Your task to perform on an android device: Go to internet settings Image 0: 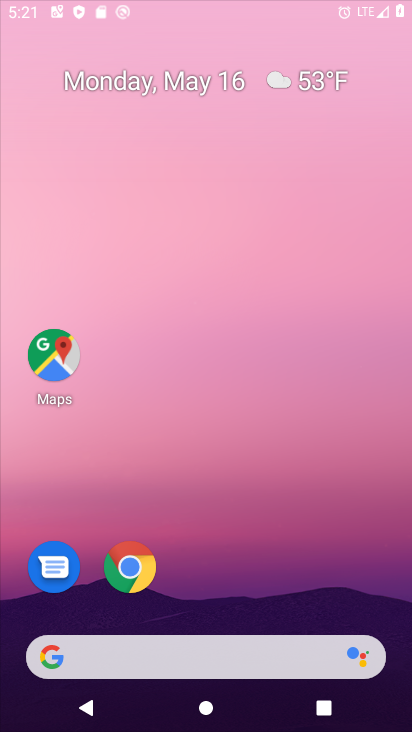
Step 0: press home button
Your task to perform on an android device: Go to internet settings Image 1: 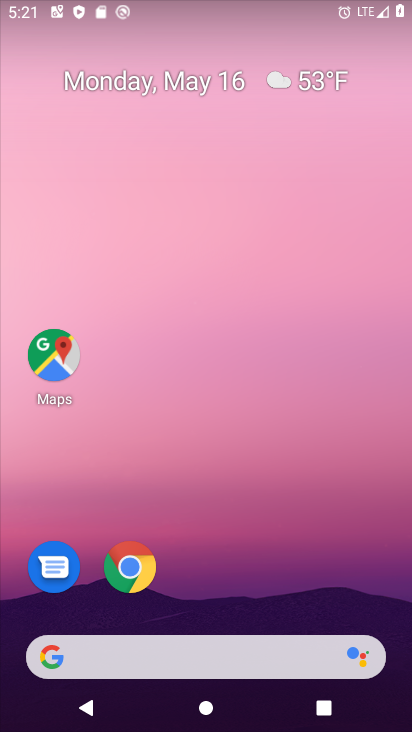
Step 1: drag from (265, 501) to (245, 130)
Your task to perform on an android device: Go to internet settings Image 2: 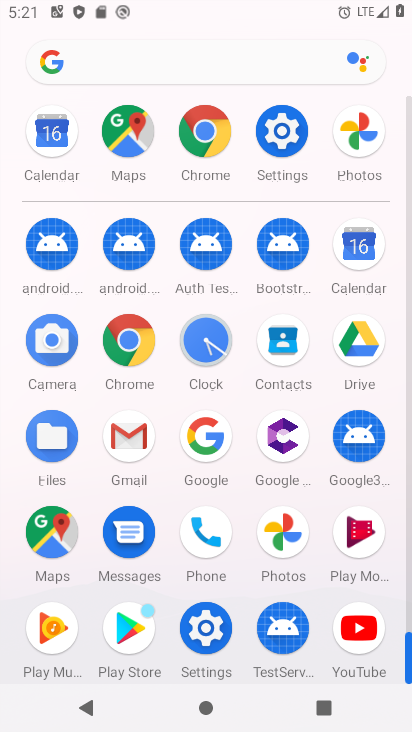
Step 2: click (287, 142)
Your task to perform on an android device: Go to internet settings Image 3: 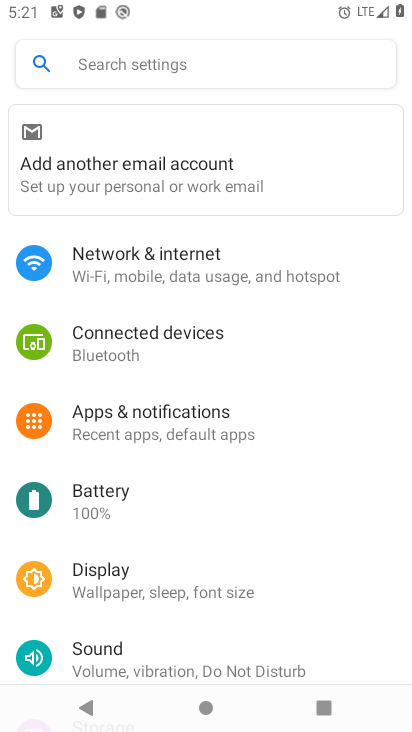
Step 3: drag from (283, 630) to (315, 167)
Your task to perform on an android device: Go to internet settings Image 4: 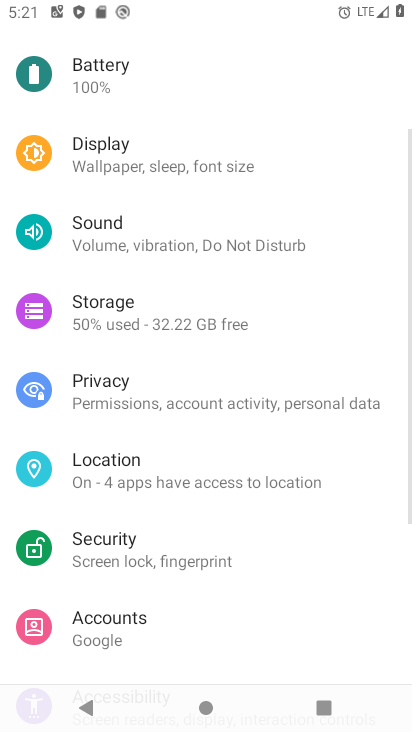
Step 4: drag from (313, 167) to (227, 729)
Your task to perform on an android device: Go to internet settings Image 5: 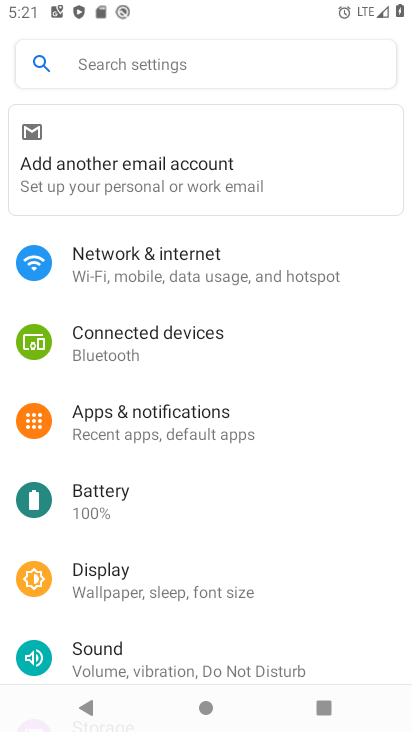
Step 5: click (222, 285)
Your task to perform on an android device: Go to internet settings Image 6: 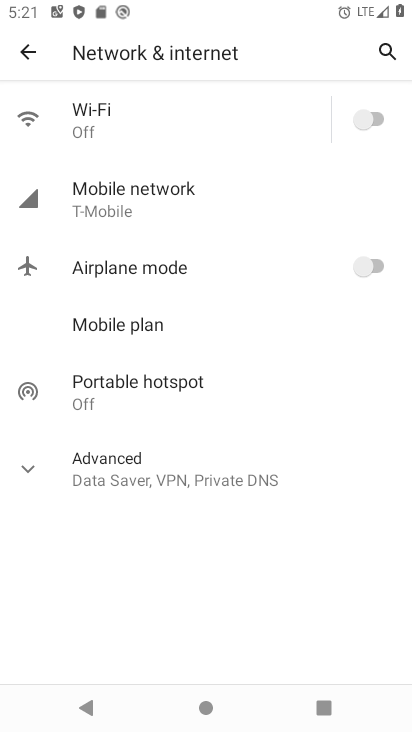
Step 6: click (187, 187)
Your task to perform on an android device: Go to internet settings Image 7: 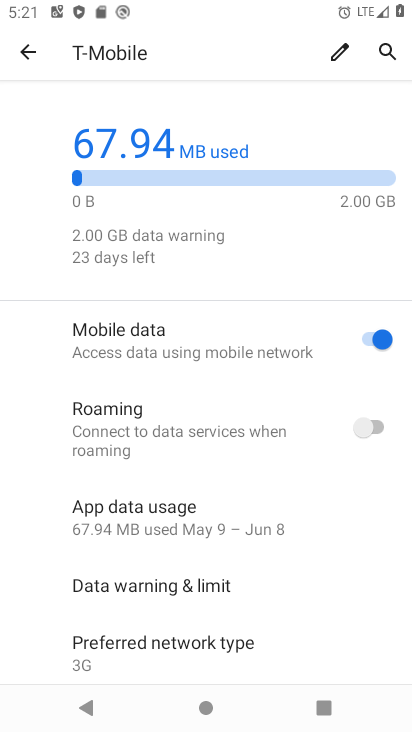
Step 7: task complete